Your task to perform on an android device: open app "Facebook" (install if not already installed) Image 0: 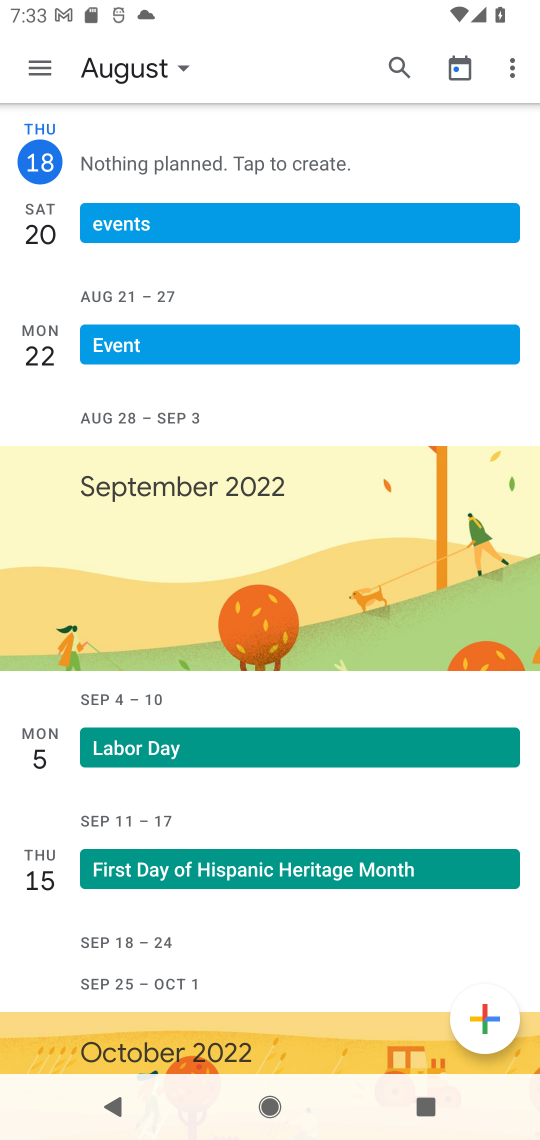
Step 0: press home button
Your task to perform on an android device: open app "Facebook" (install if not already installed) Image 1: 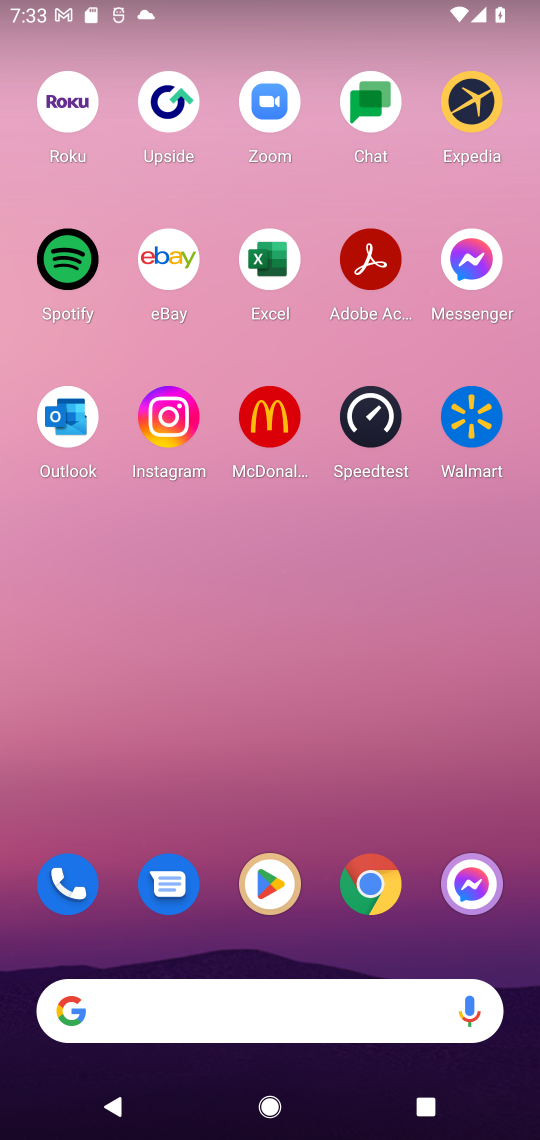
Step 1: drag from (220, 1009) to (389, 122)
Your task to perform on an android device: open app "Facebook" (install if not already installed) Image 2: 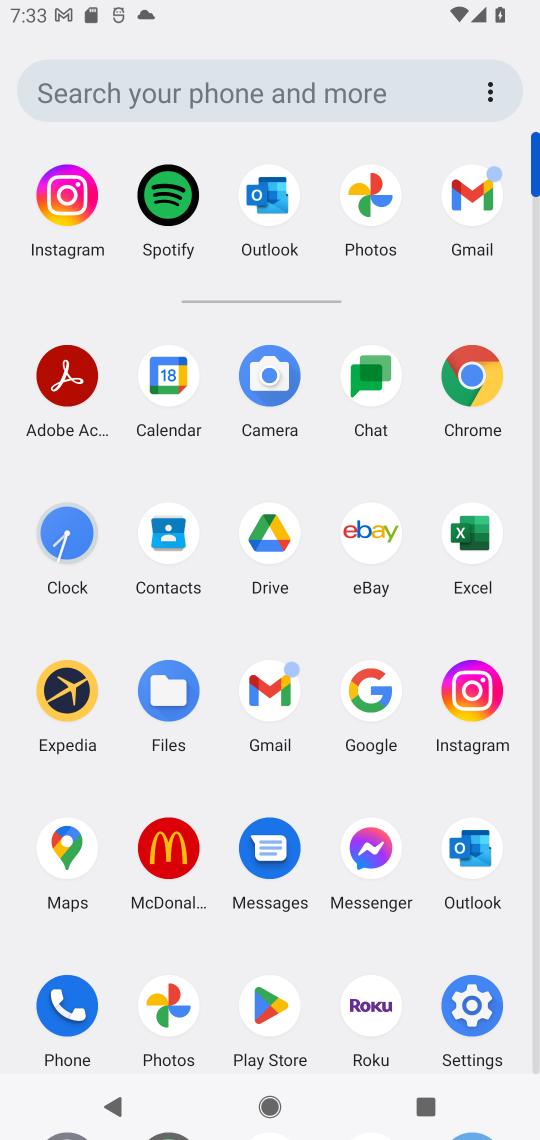
Step 2: click (276, 1007)
Your task to perform on an android device: open app "Facebook" (install if not already installed) Image 3: 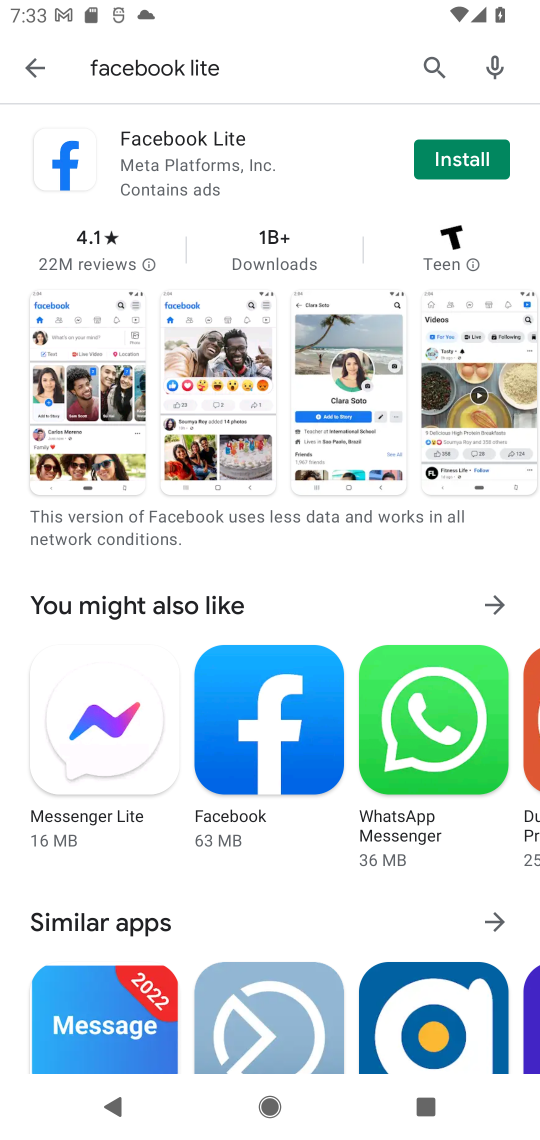
Step 3: press back button
Your task to perform on an android device: open app "Facebook" (install if not already installed) Image 4: 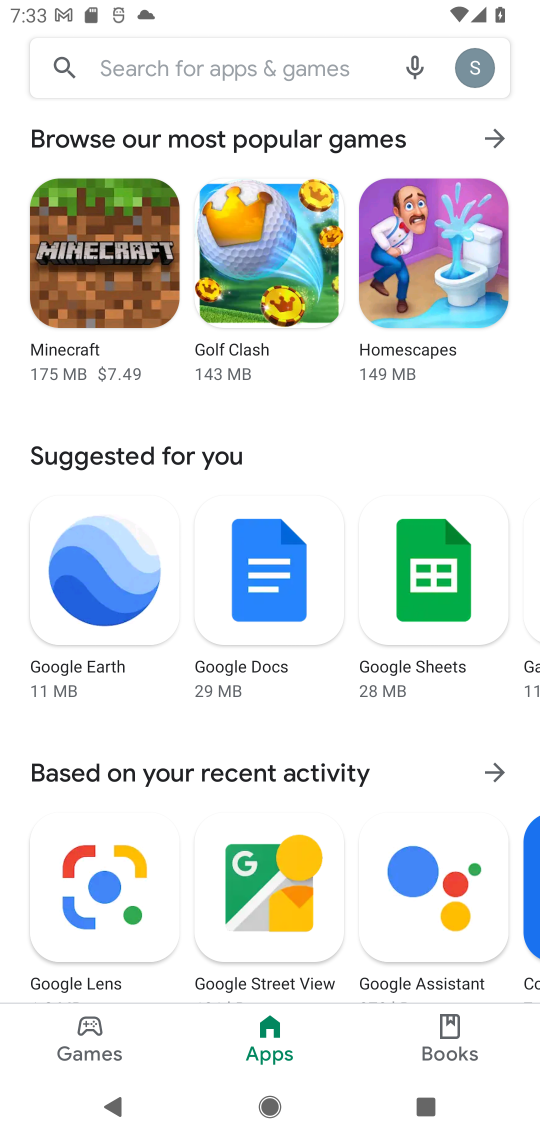
Step 4: click (287, 75)
Your task to perform on an android device: open app "Facebook" (install if not already installed) Image 5: 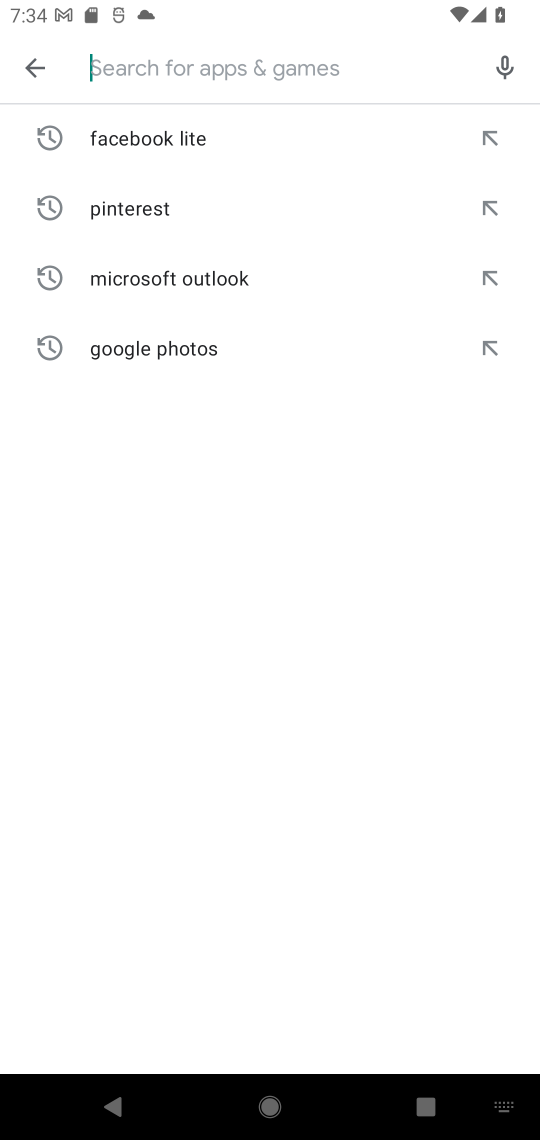
Step 5: type "Facebook"
Your task to perform on an android device: open app "Facebook" (install if not already installed) Image 6: 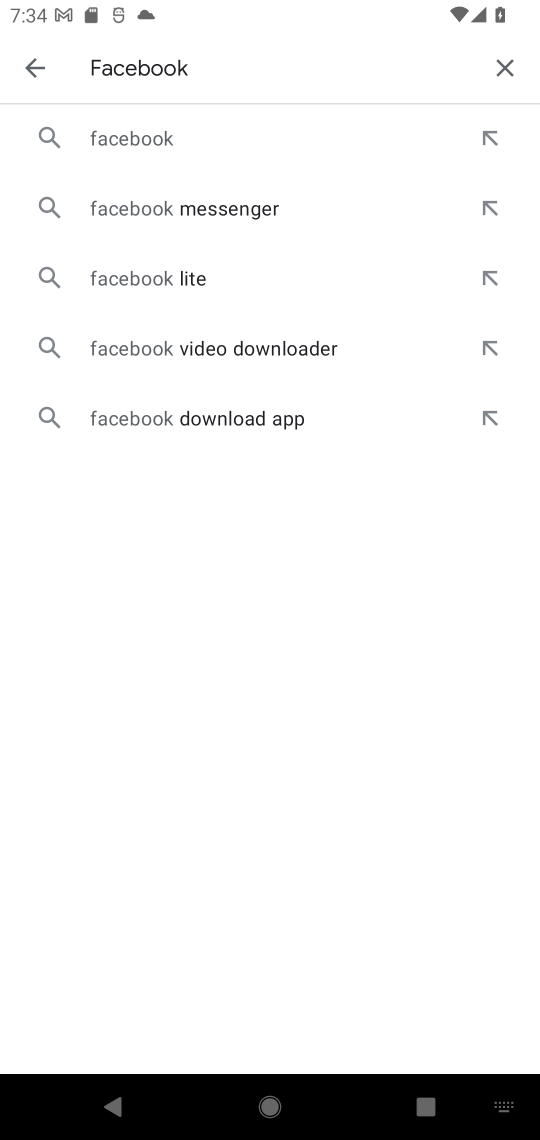
Step 6: click (156, 140)
Your task to perform on an android device: open app "Facebook" (install if not already installed) Image 7: 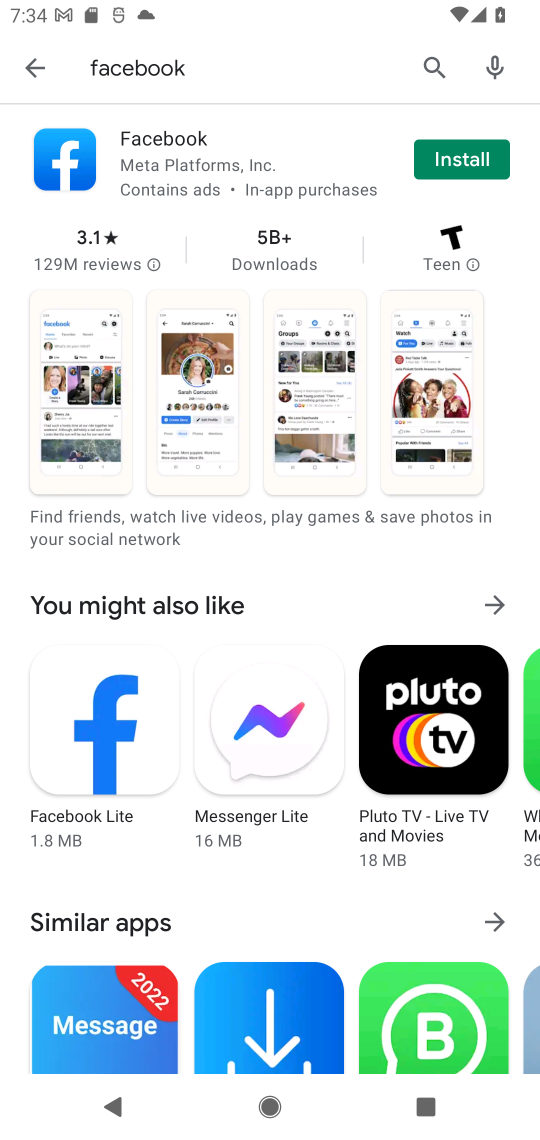
Step 7: click (476, 163)
Your task to perform on an android device: open app "Facebook" (install if not already installed) Image 8: 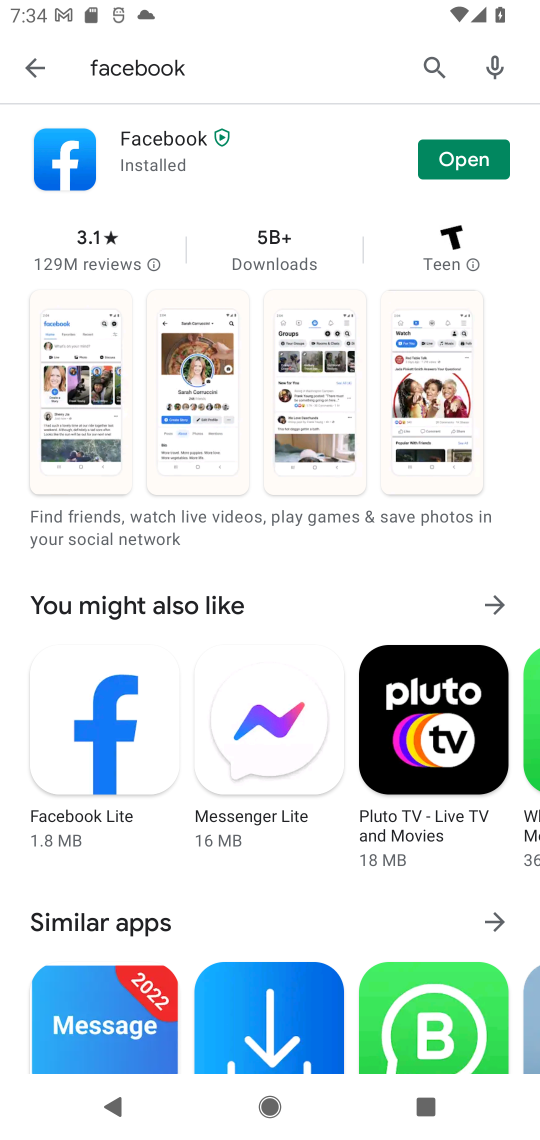
Step 8: click (476, 163)
Your task to perform on an android device: open app "Facebook" (install if not already installed) Image 9: 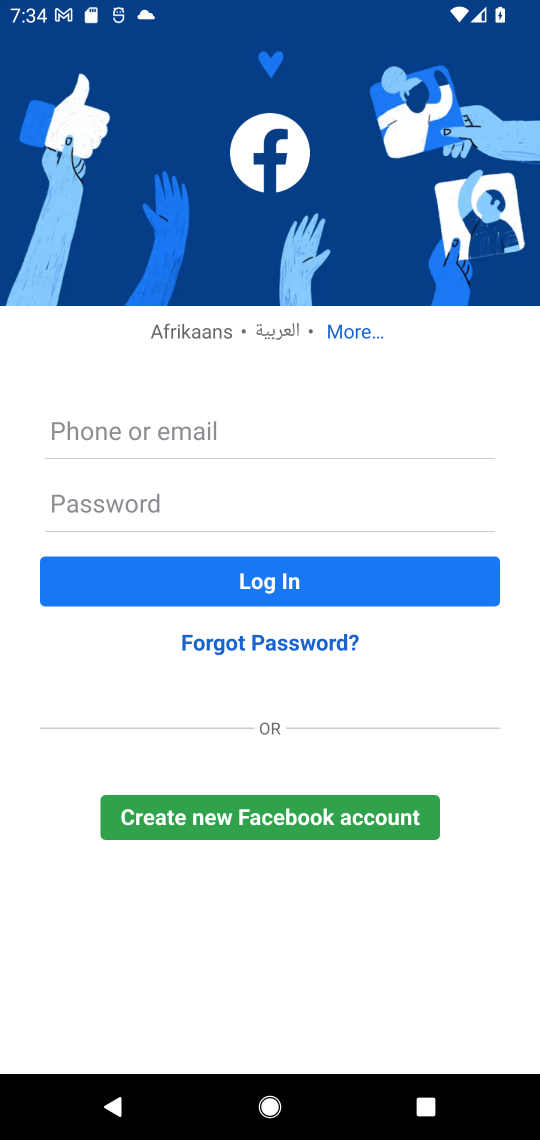
Step 9: task complete